Your task to perform on an android device: Check the weather Image 0: 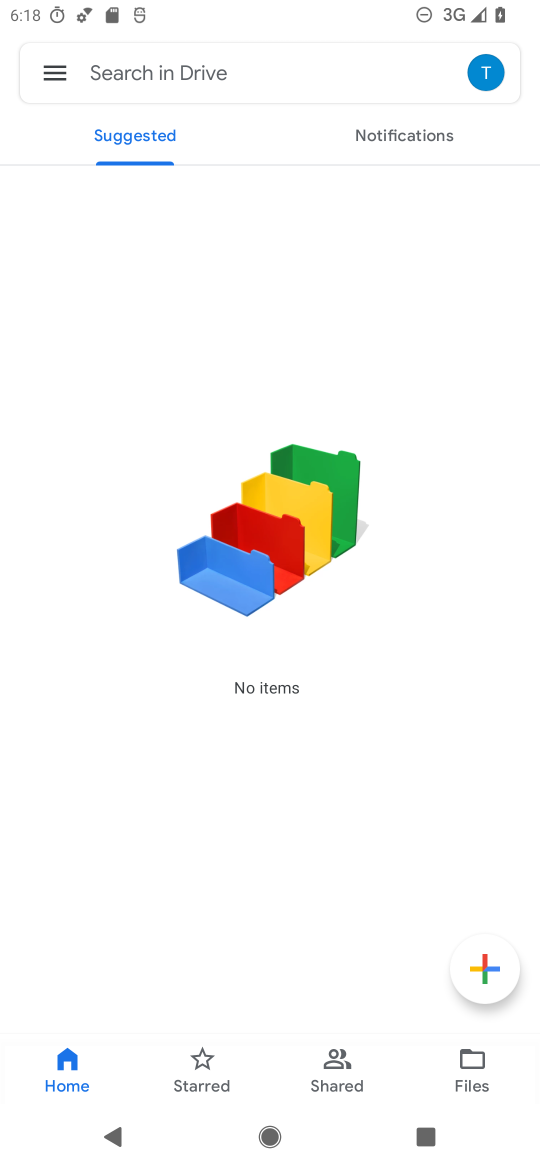
Step 0: press home button
Your task to perform on an android device: Check the weather Image 1: 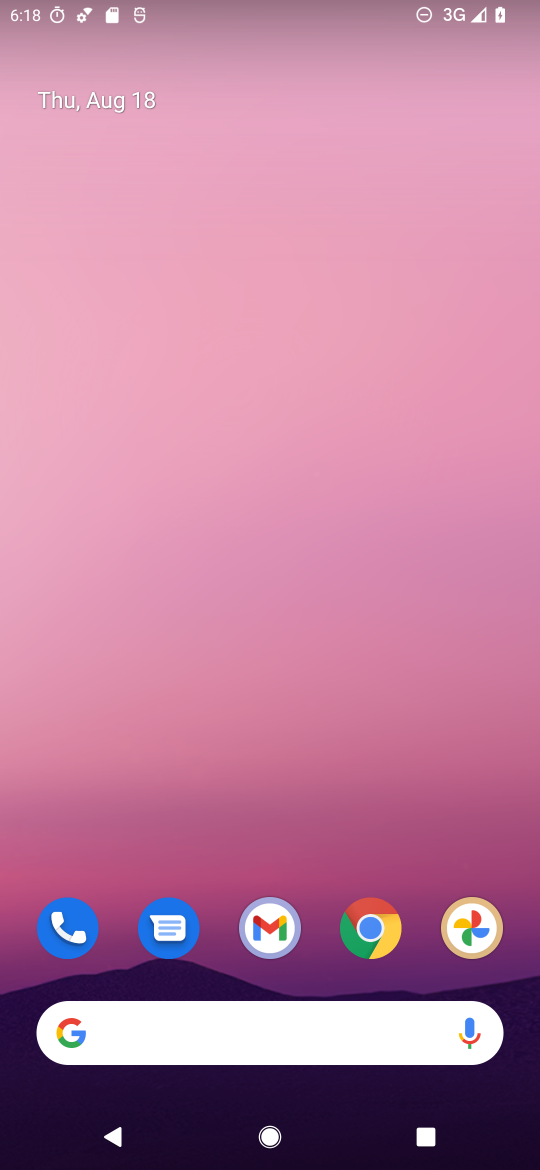
Step 1: drag from (291, 778) to (373, 70)
Your task to perform on an android device: Check the weather Image 2: 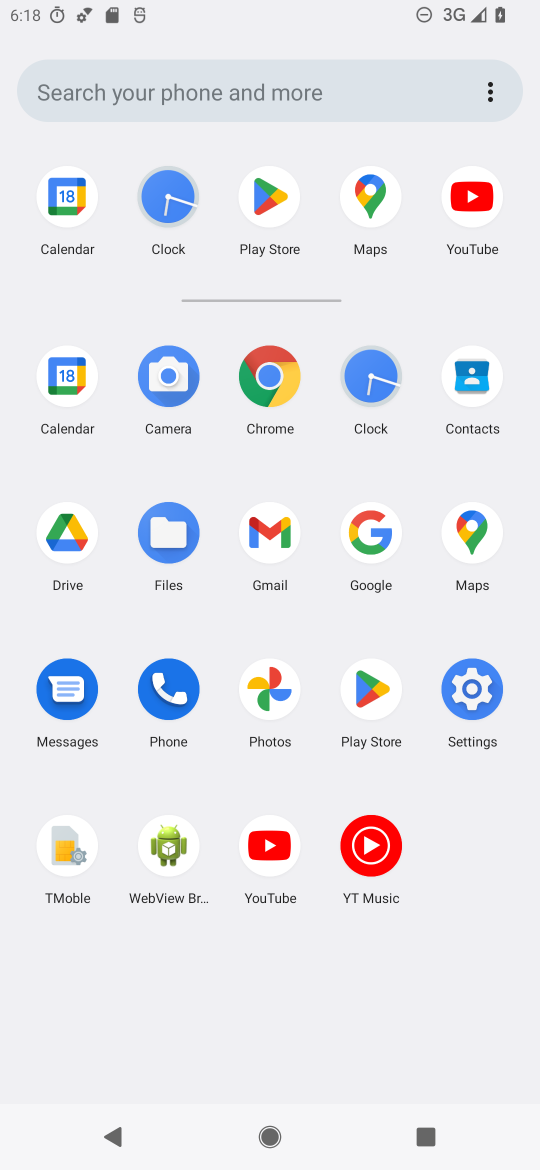
Step 2: click (273, 375)
Your task to perform on an android device: Check the weather Image 3: 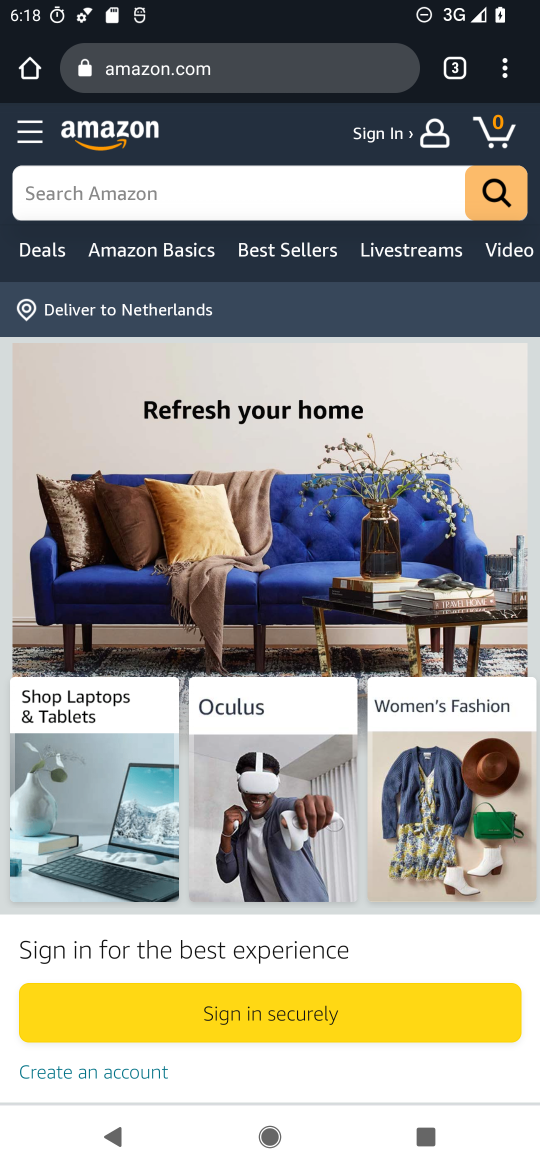
Step 3: click (282, 81)
Your task to perform on an android device: Check the weather Image 4: 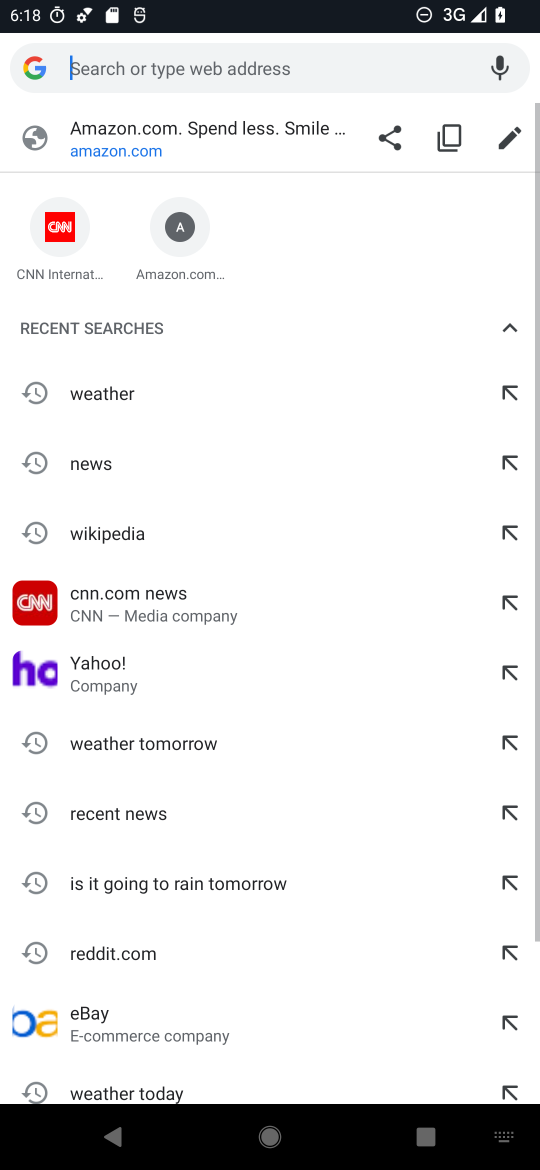
Step 4: click (135, 396)
Your task to perform on an android device: Check the weather Image 5: 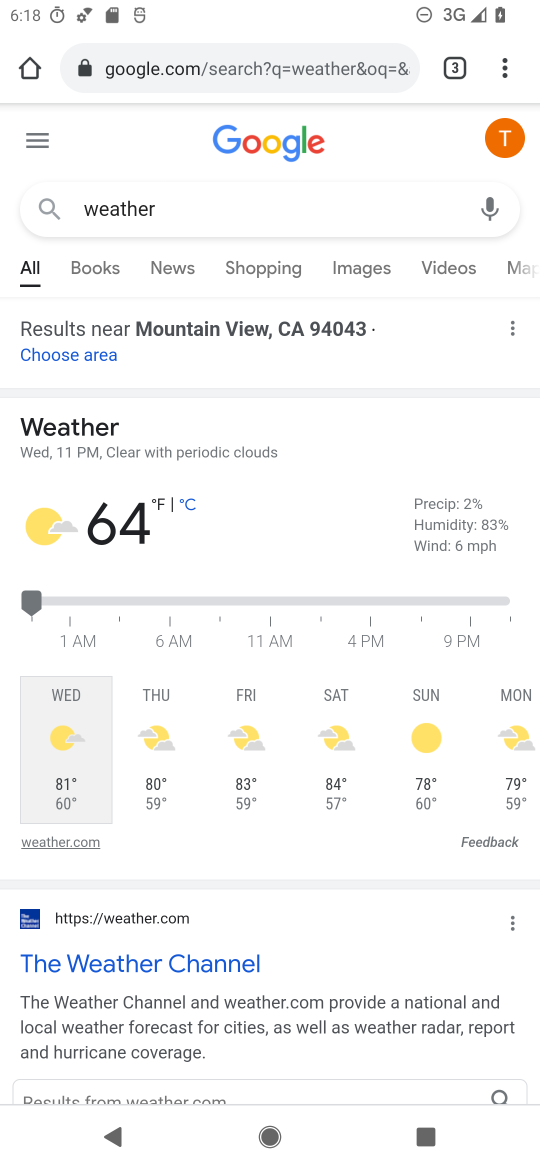
Step 5: task complete